Your task to perform on an android device: move an email to a new category in the gmail app Image 0: 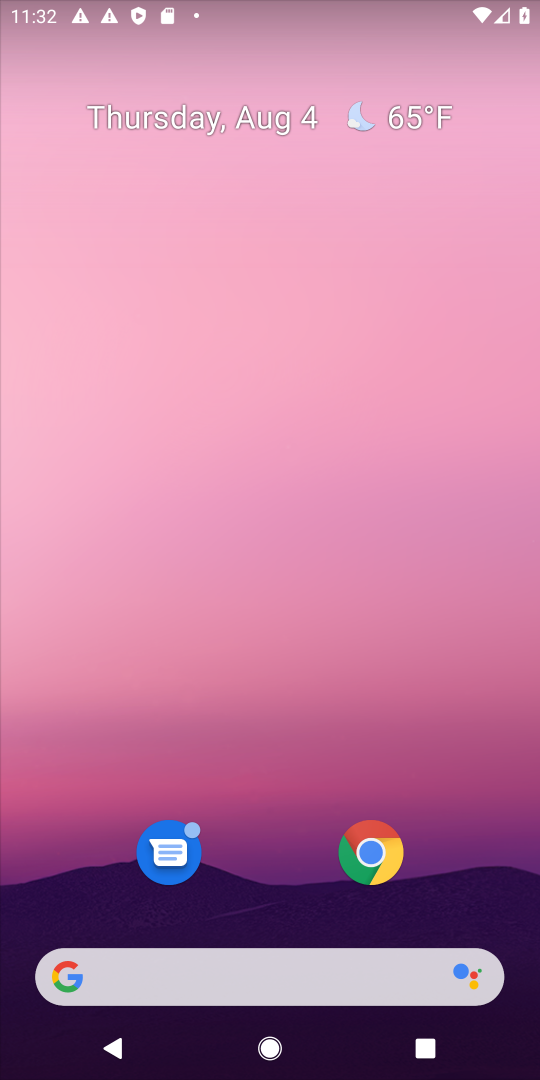
Step 0: drag from (526, 1051) to (466, 443)
Your task to perform on an android device: move an email to a new category in the gmail app Image 1: 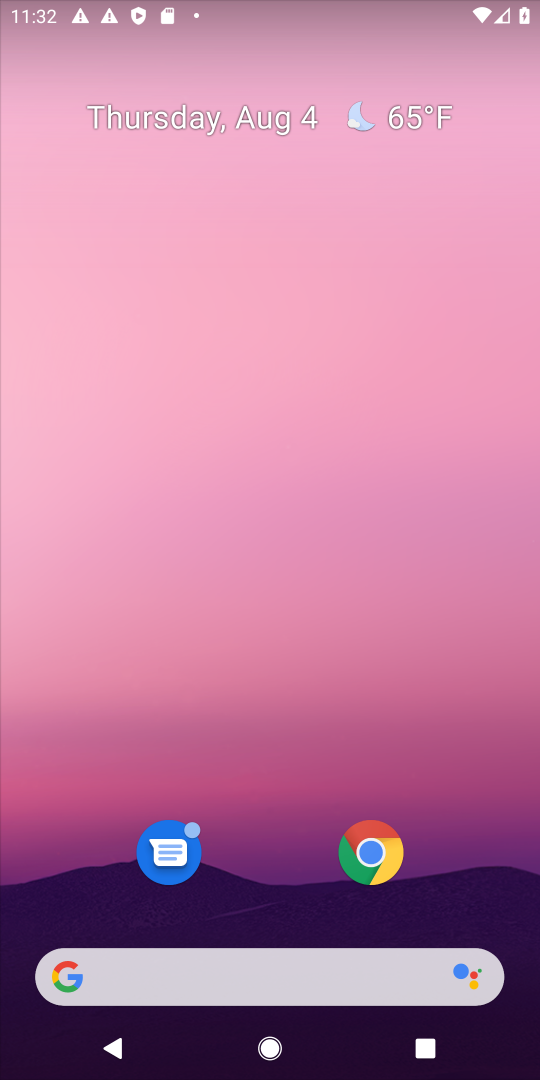
Step 1: drag from (506, 1062) to (435, 327)
Your task to perform on an android device: move an email to a new category in the gmail app Image 2: 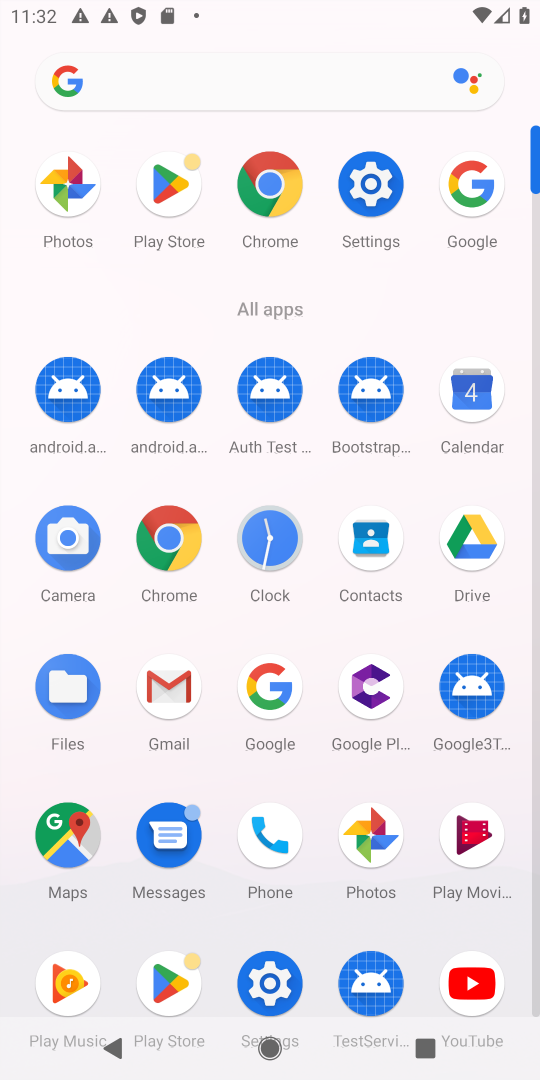
Step 2: click (180, 690)
Your task to perform on an android device: move an email to a new category in the gmail app Image 3: 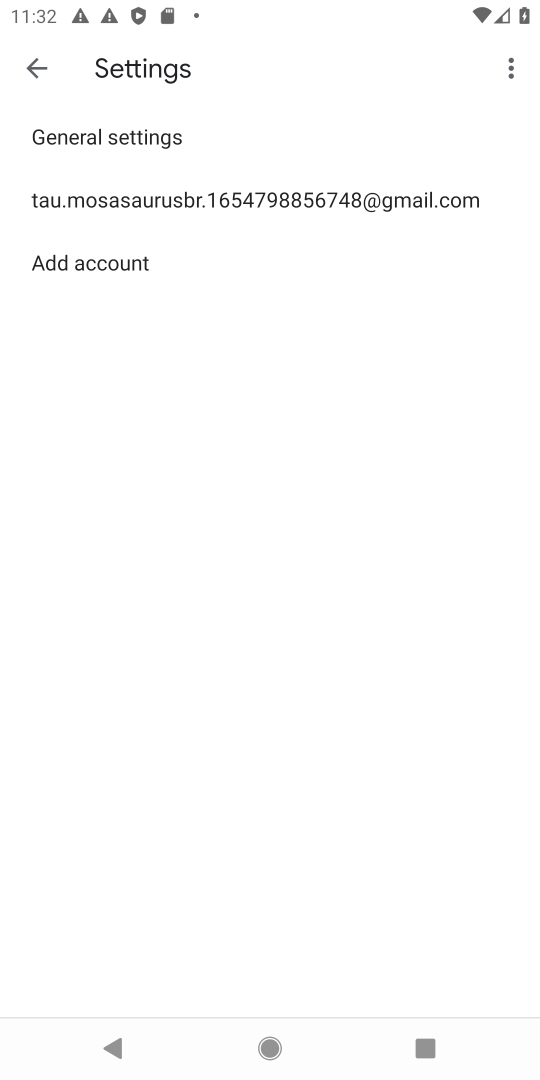
Step 3: click (188, 196)
Your task to perform on an android device: move an email to a new category in the gmail app Image 4: 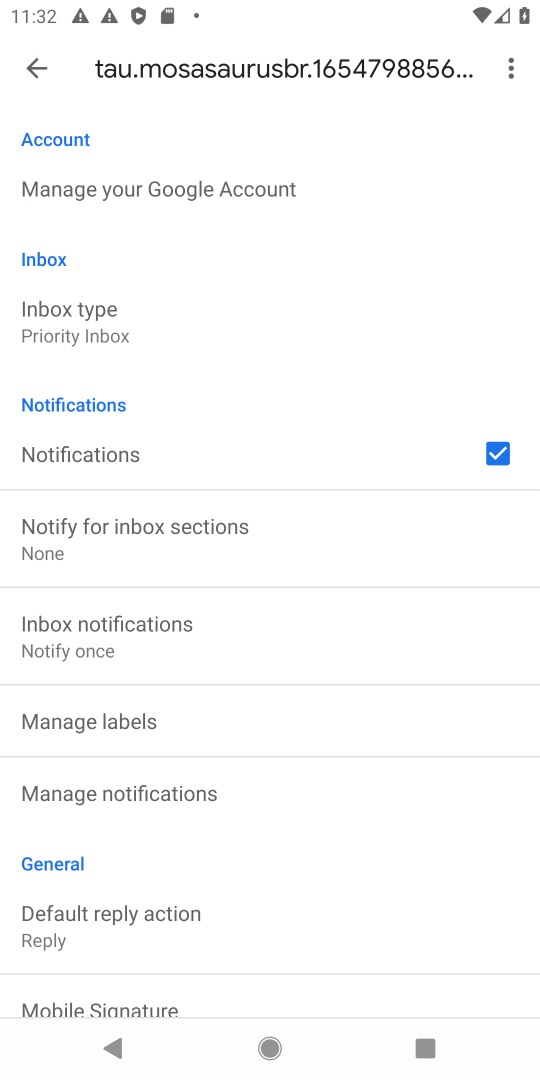
Step 4: drag from (312, 930) to (288, 500)
Your task to perform on an android device: move an email to a new category in the gmail app Image 5: 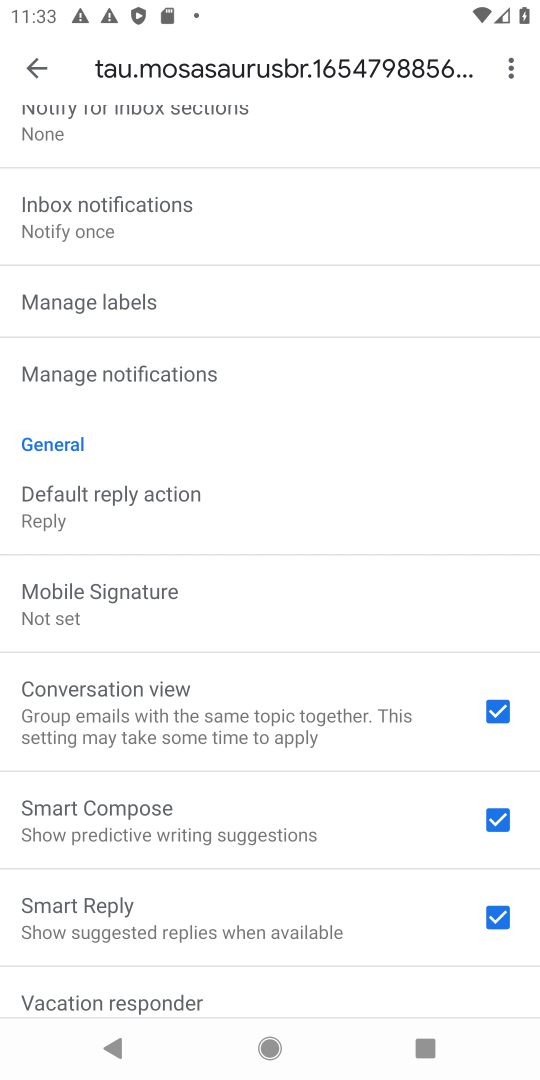
Step 5: click (33, 73)
Your task to perform on an android device: move an email to a new category in the gmail app Image 6: 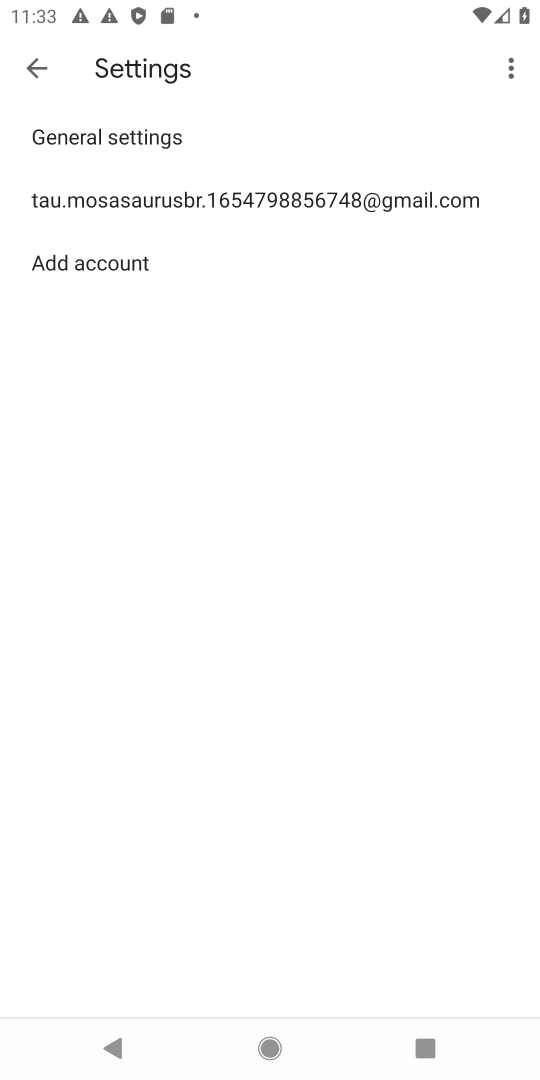
Step 6: click (24, 83)
Your task to perform on an android device: move an email to a new category in the gmail app Image 7: 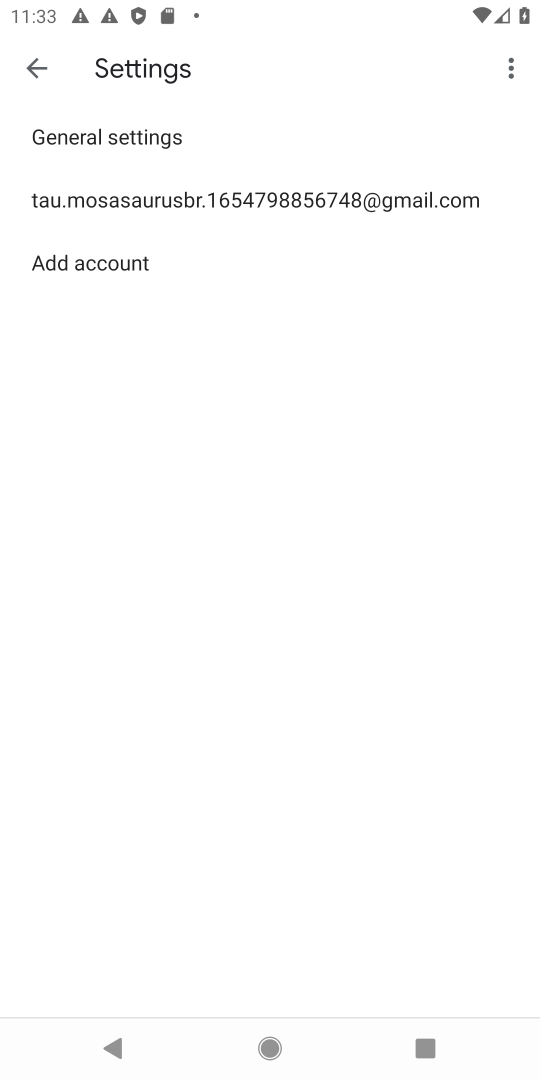
Step 7: task complete